Your task to perform on an android device: Open Google Maps Image 0: 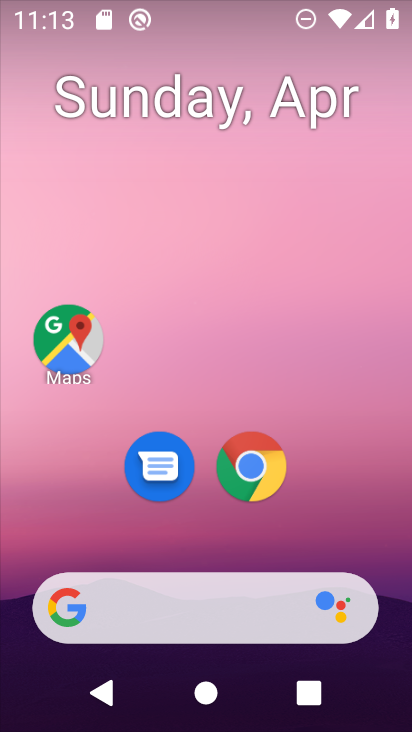
Step 0: drag from (358, 524) to (364, 94)
Your task to perform on an android device: Open Google Maps Image 1: 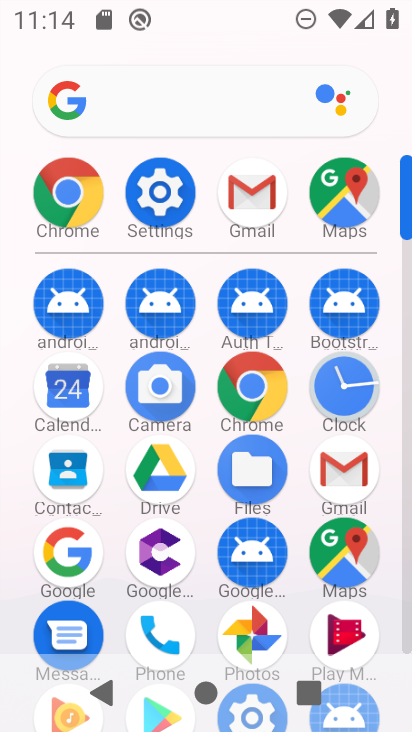
Step 1: click (68, 554)
Your task to perform on an android device: Open Google Maps Image 2: 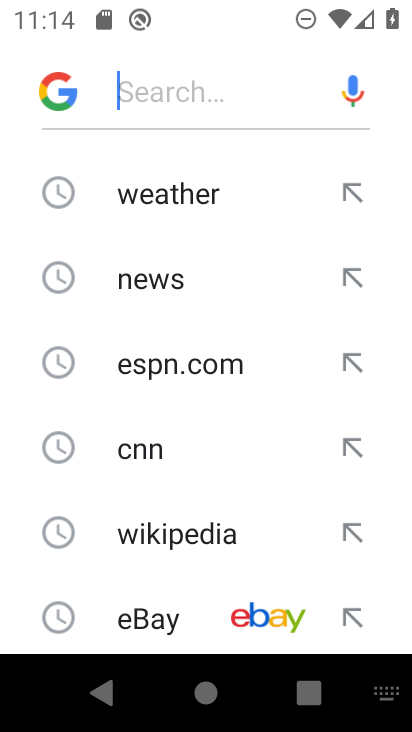
Step 2: task complete